Your task to perform on an android device: toggle improve location accuracy Image 0: 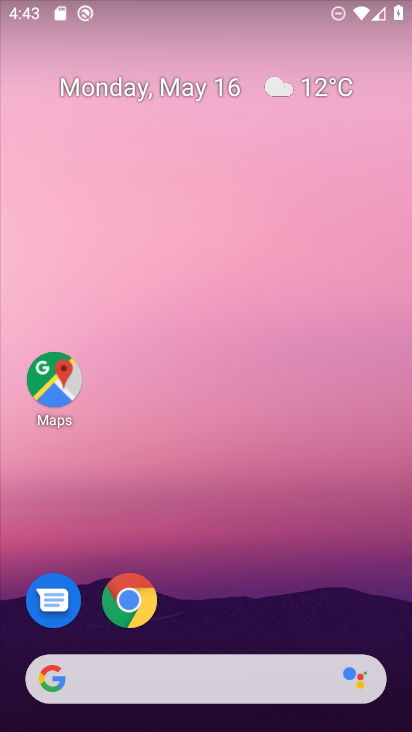
Step 0: drag from (322, 464) to (330, 174)
Your task to perform on an android device: toggle improve location accuracy Image 1: 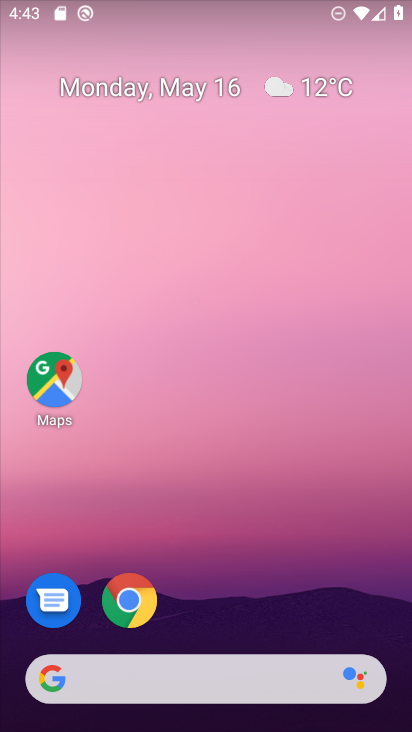
Step 1: drag from (263, 525) to (306, 11)
Your task to perform on an android device: toggle improve location accuracy Image 2: 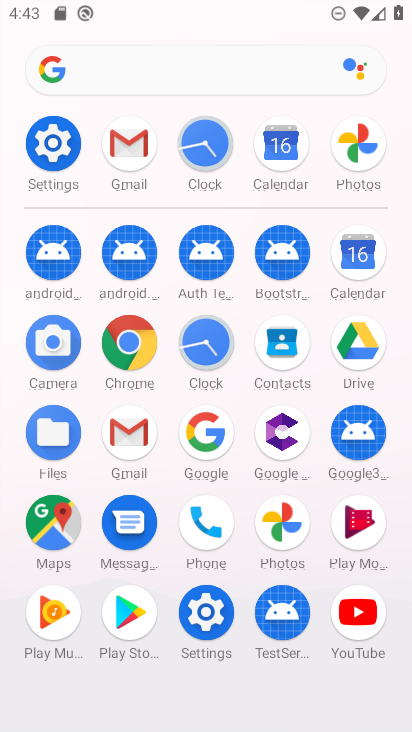
Step 2: click (41, 139)
Your task to perform on an android device: toggle improve location accuracy Image 3: 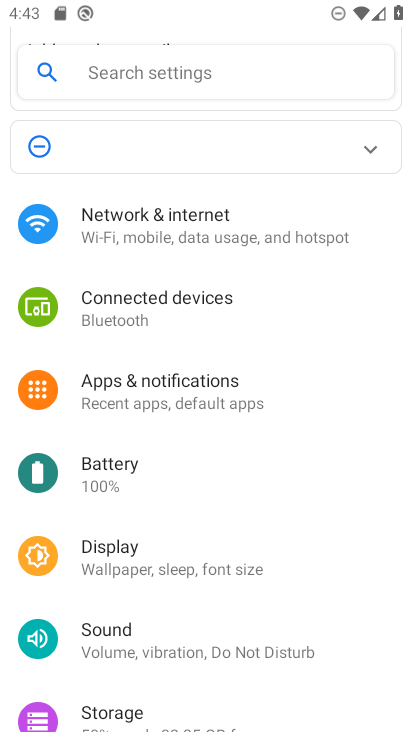
Step 3: drag from (226, 675) to (255, 181)
Your task to perform on an android device: toggle improve location accuracy Image 4: 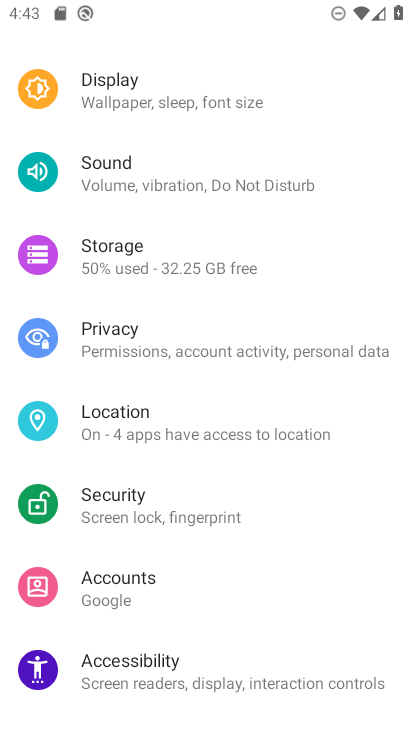
Step 4: drag from (174, 592) to (197, 715)
Your task to perform on an android device: toggle improve location accuracy Image 5: 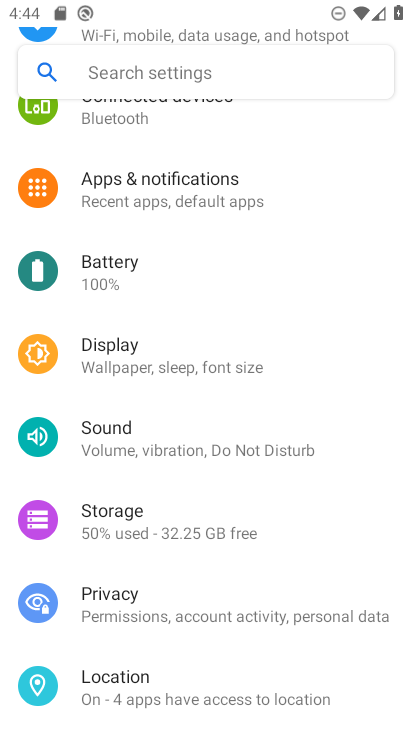
Step 5: drag from (244, 245) to (296, 136)
Your task to perform on an android device: toggle improve location accuracy Image 6: 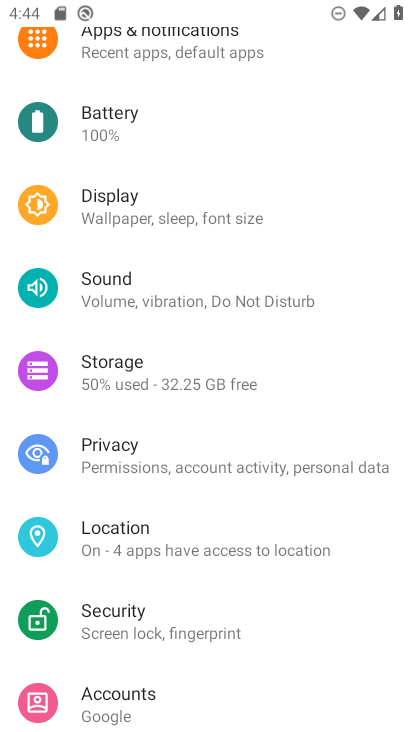
Step 6: click (242, 548)
Your task to perform on an android device: toggle improve location accuracy Image 7: 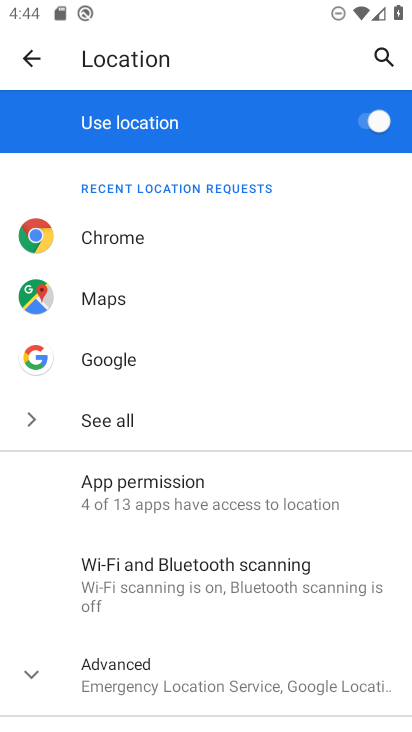
Step 7: drag from (218, 589) to (274, 103)
Your task to perform on an android device: toggle improve location accuracy Image 8: 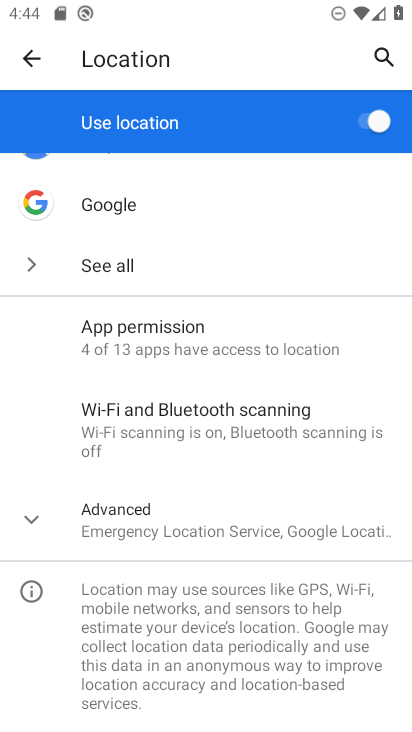
Step 8: click (182, 529)
Your task to perform on an android device: toggle improve location accuracy Image 9: 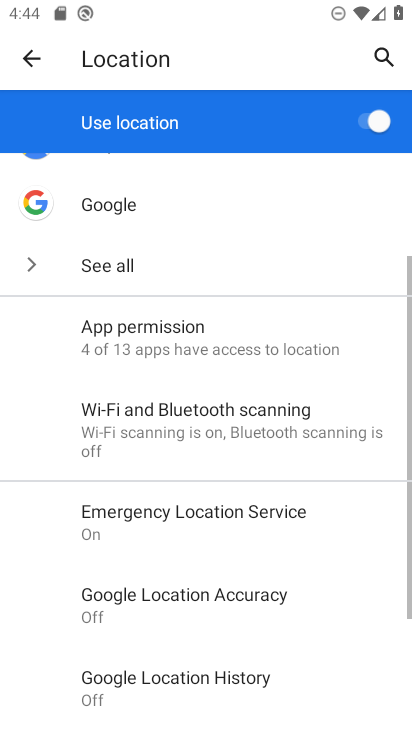
Step 9: drag from (296, 612) to (354, 179)
Your task to perform on an android device: toggle improve location accuracy Image 10: 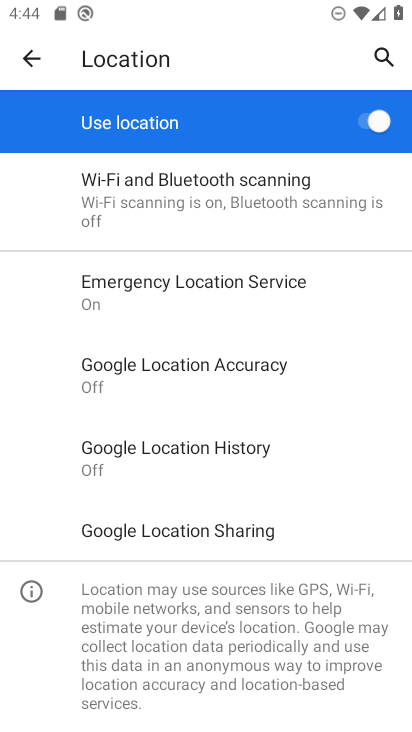
Step 10: click (212, 380)
Your task to perform on an android device: toggle improve location accuracy Image 11: 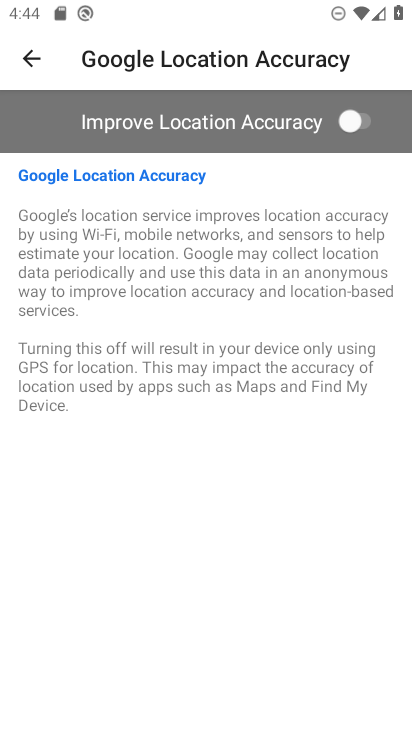
Step 11: click (348, 115)
Your task to perform on an android device: toggle improve location accuracy Image 12: 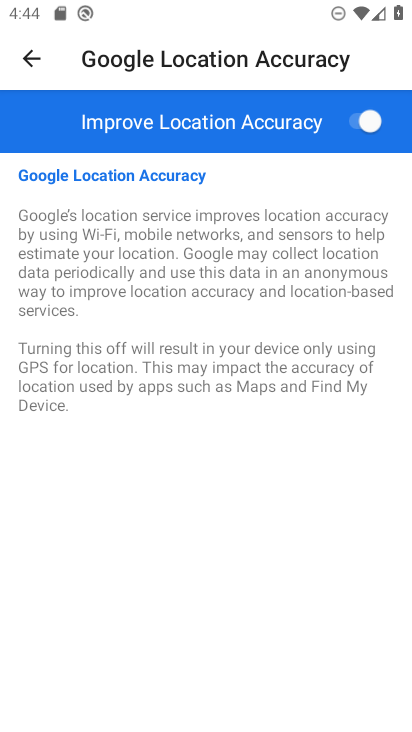
Step 12: task complete